Your task to perform on an android device: turn off priority inbox in the gmail app Image 0: 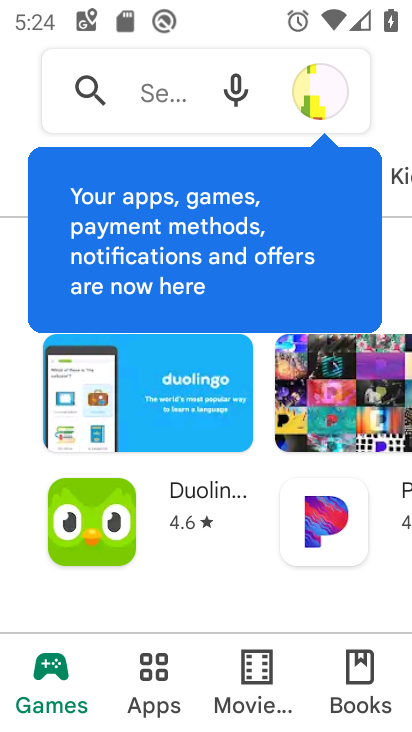
Step 0: click (185, 97)
Your task to perform on an android device: turn off priority inbox in the gmail app Image 1: 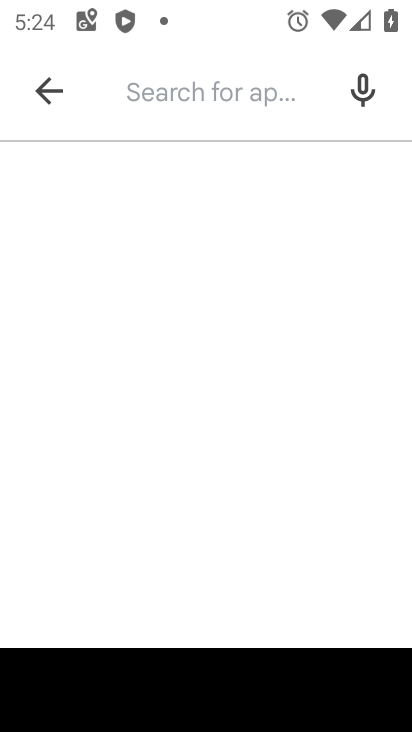
Step 1: press home button
Your task to perform on an android device: turn off priority inbox in the gmail app Image 2: 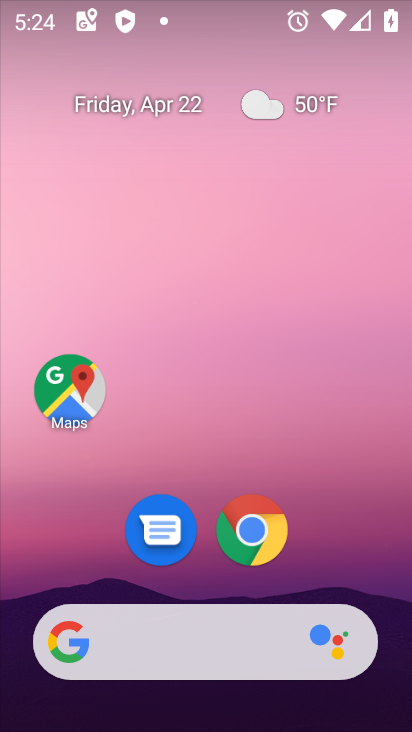
Step 2: drag from (311, 517) to (405, 38)
Your task to perform on an android device: turn off priority inbox in the gmail app Image 3: 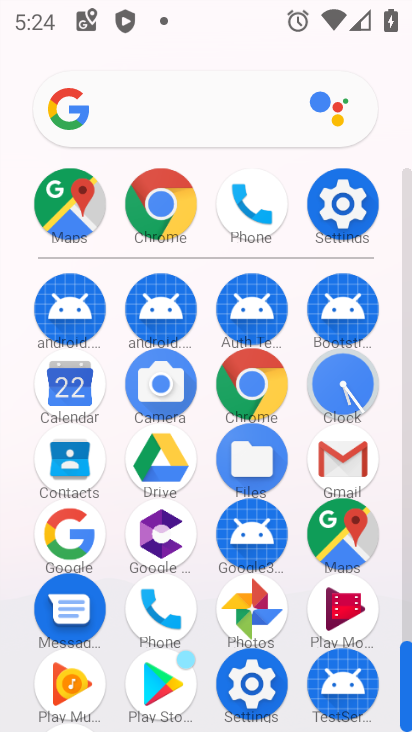
Step 3: click (350, 456)
Your task to perform on an android device: turn off priority inbox in the gmail app Image 4: 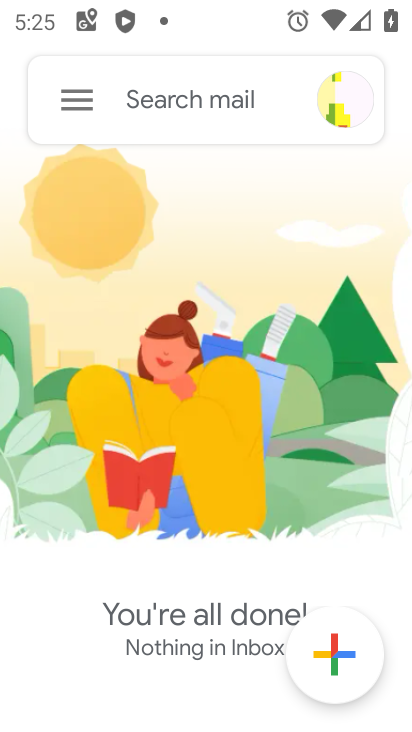
Step 4: click (79, 81)
Your task to perform on an android device: turn off priority inbox in the gmail app Image 5: 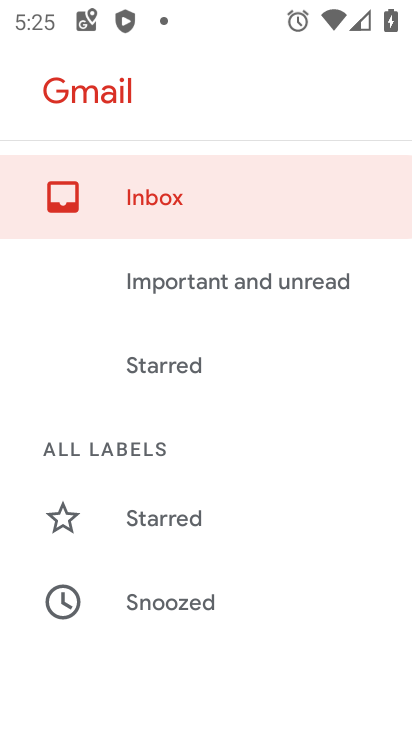
Step 5: drag from (373, 641) to (385, 731)
Your task to perform on an android device: turn off priority inbox in the gmail app Image 6: 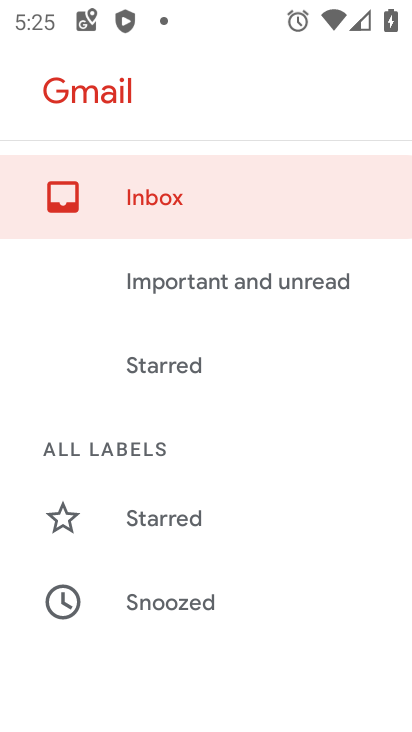
Step 6: drag from (364, 664) to (328, 53)
Your task to perform on an android device: turn off priority inbox in the gmail app Image 7: 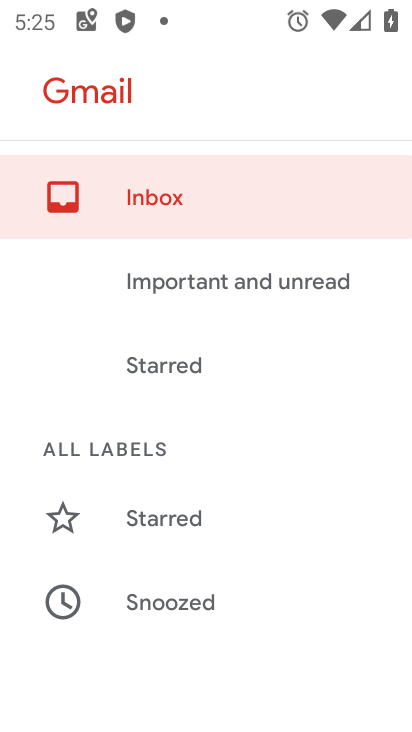
Step 7: drag from (352, 623) to (395, 116)
Your task to perform on an android device: turn off priority inbox in the gmail app Image 8: 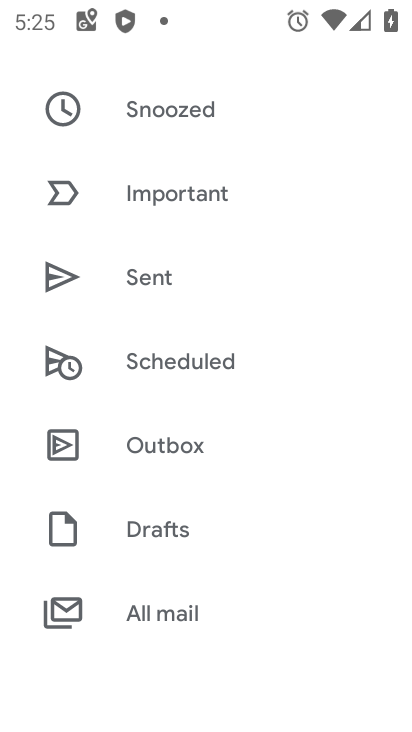
Step 8: drag from (349, 580) to (386, 201)
Your task to perform on an android device: turn off priority inbox in the gmail app Image 9: 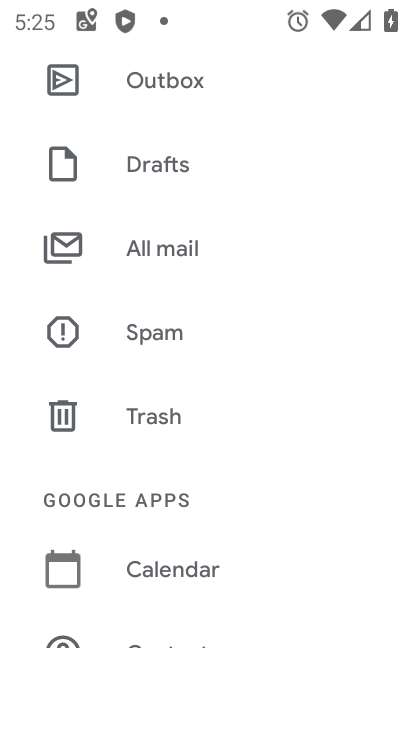
Step 9: drag from (366, 505) to (385, 184)
Your task to perform on an android device: turn off priority inbox in the gmail app Image 10: 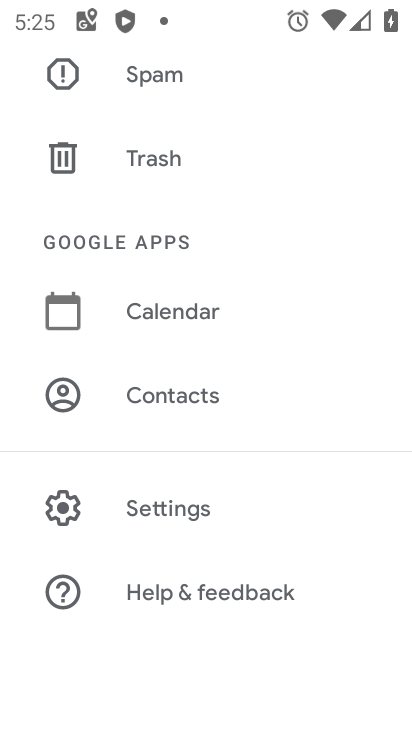
Step 10: click (183, 499)
Your task to perform on an android device: turn off priority inbox in the gmail app Image 11: 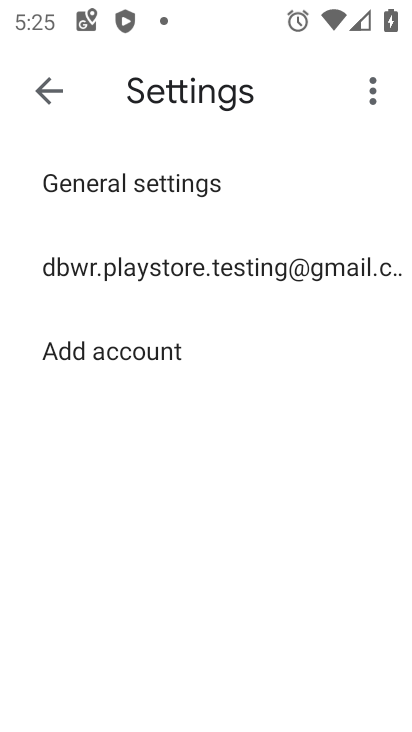
Step 11: click (238, 263)
Your task to perform on an android device: turn off priority inbox in the gmail app Image 12: 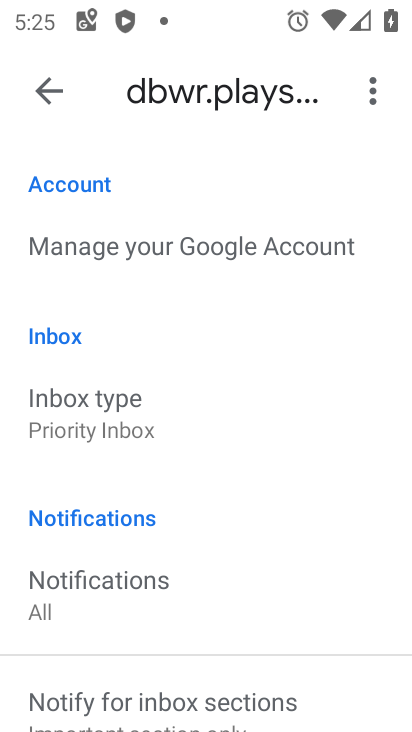
Step 12: click (115, 420)
Your task to perform on an android device: turn off priority inbox in the gmail app Image 13: 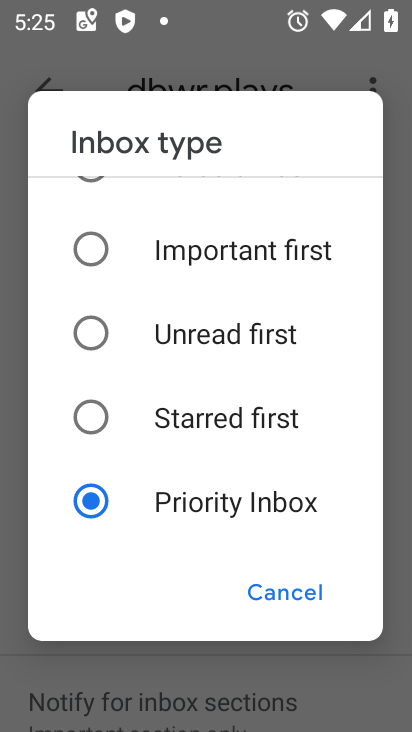
Step 13: drag from (188, 233) to (218, 539)
Your task to perform on an android device: turn off priority inbox in the gmail app Image 14: 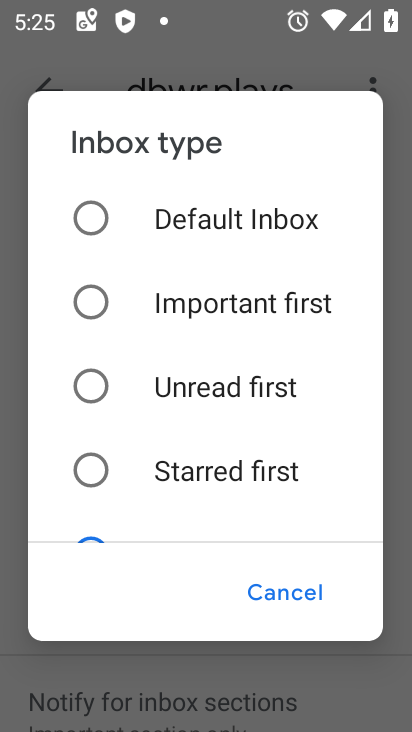
Step 14: click (200, 216)
Your task to perform on an android device: turn off priority inbox in the gmail app Image 15: 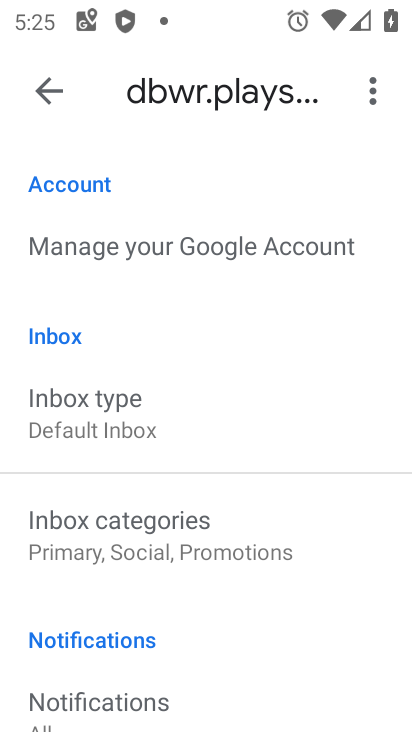
Step 15: task complete